Your task to perform on an android device: toggle show notifications on the lock screen Image 0: 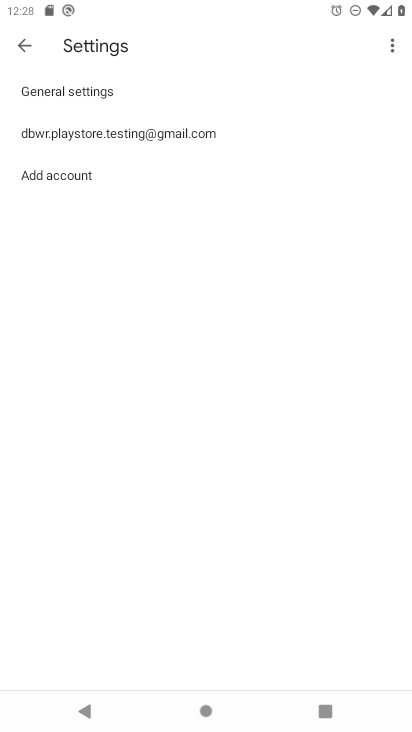
Step 0: press home button
Your task to perform on an android device: toggle show notifications on the lock screen Image 1: 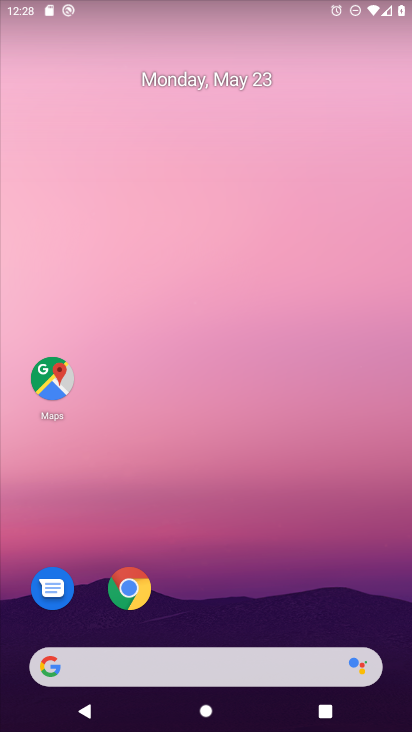
Step 1: drag from (228, 655) to (209, 107)
Your task to perform on an android device: toggle show notifications on the lock screen Image 2: 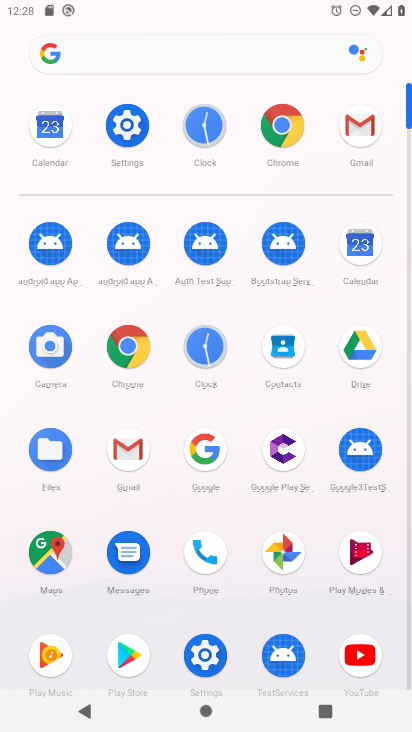
Step 2: click (135, 150)
Your task to perform on an android device: toggle show notifications on the lock screen Image 3: 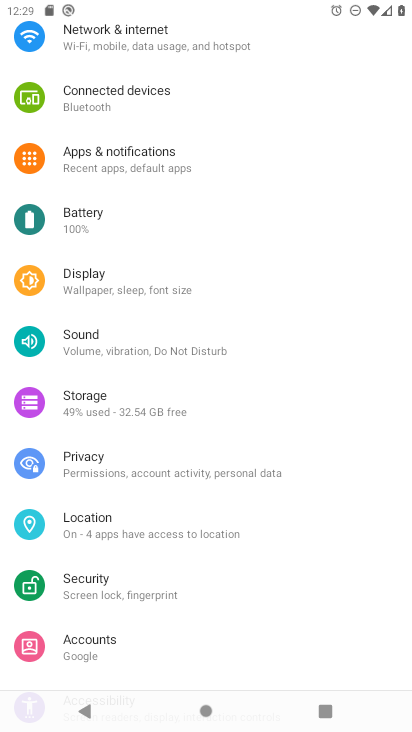
Step 3: drag from (116, 216) to (149, 407)
Your task to perform on an android device: toggle show notifications on the lock screen Image 4: 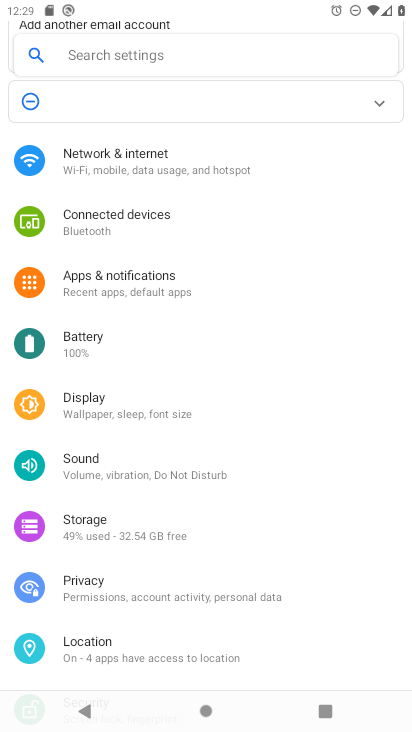
Step 4: click (158, 61)
Your task to perform on an android device: toggle show notifications on the lock screen Image 5: 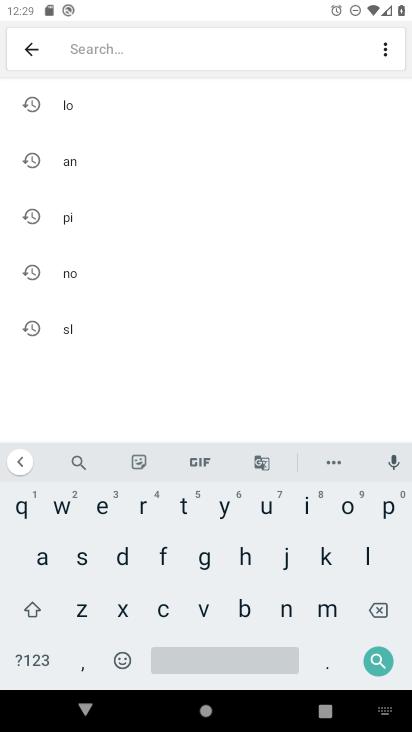
Step 5: click (93, 280)
Your task to perform on an android device: toggle show notifications on the lock screen Image 6: 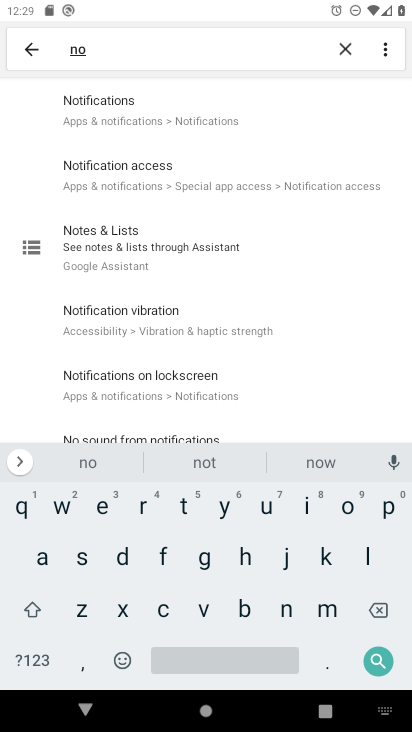
Step 6: click (150, 115)
Your task to perform on an android device: toggle show notifications on the lock screen Image 7: 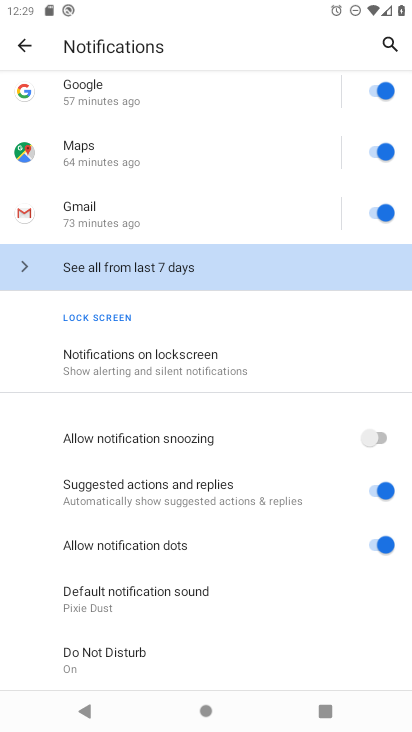
Step 7: click (155, 361)
Your task to perform on an android device: toggle show notifications on the lock screen Image 8: 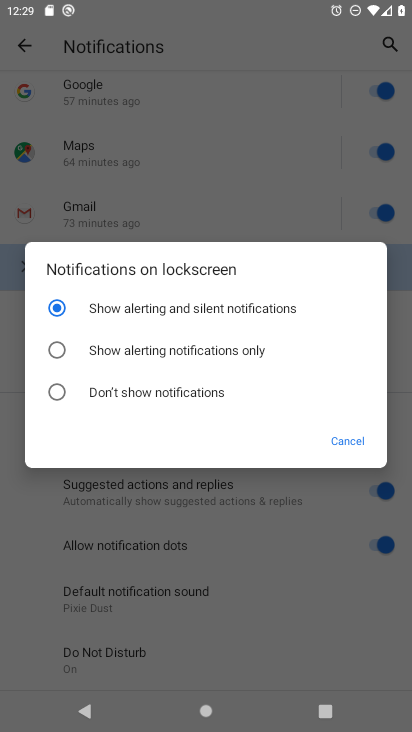
Step 8: task complete